Your task to perform on an android device: Open Amazon Image 0: 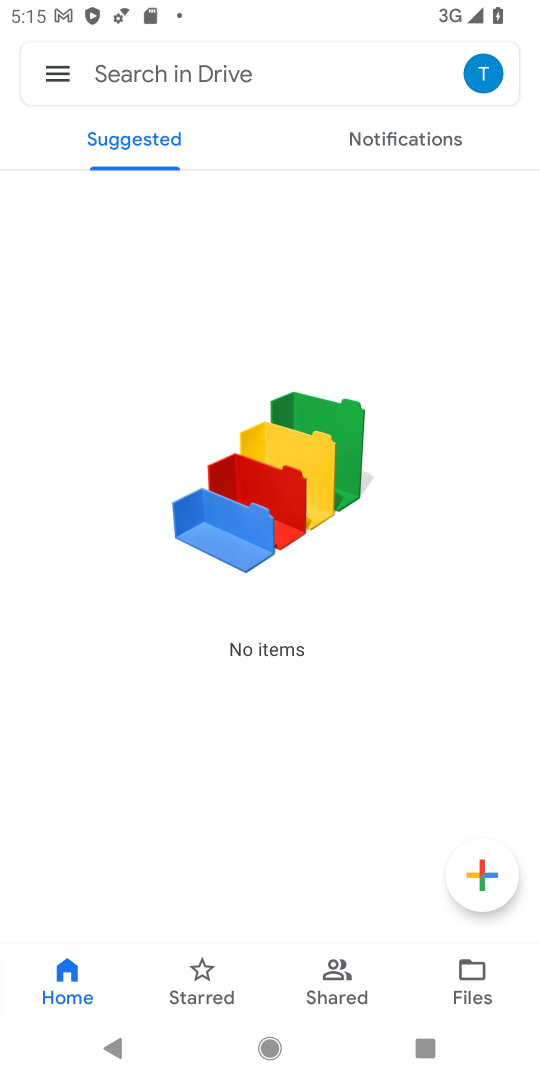
Step 0: press home button
Your task to perform on an android device: Open Amazon Image 1: 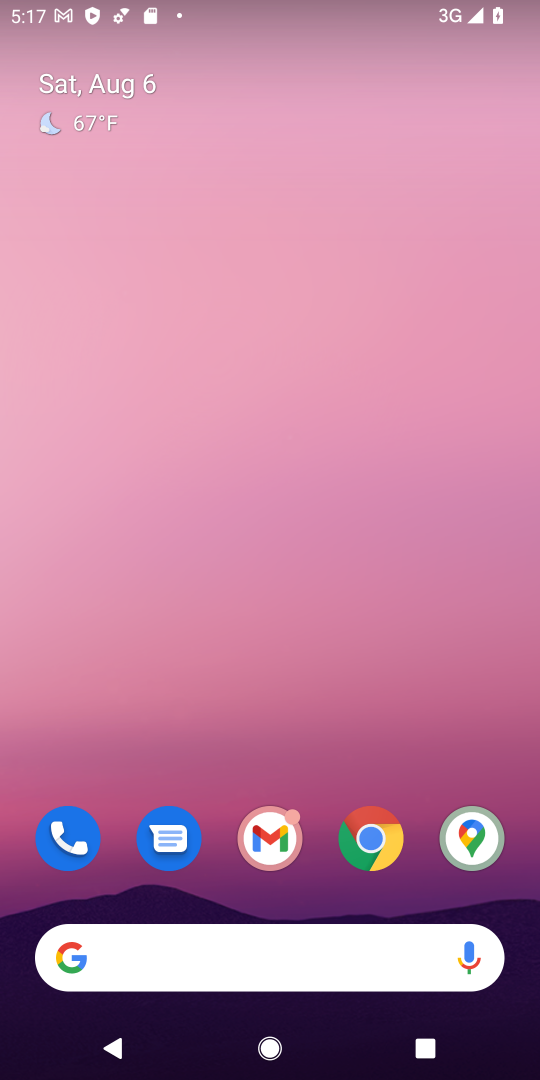
Step 1: drag from (258, 569) to (364, 53)
Your task to perform on an android device: Open Amazon Image 2: 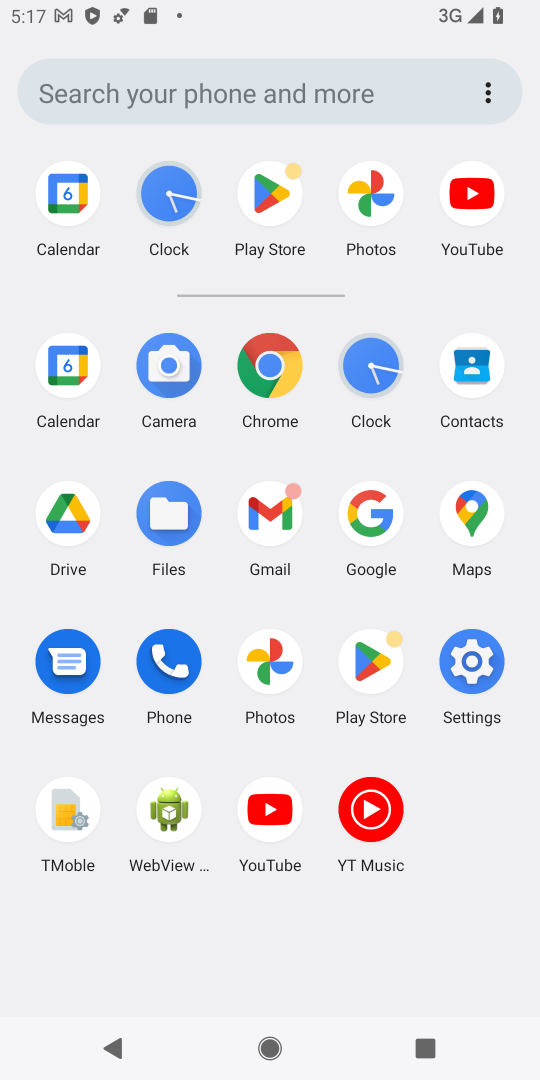
Step 2: click (255, 381)
Your task to perform on an android device: Open Amazon Image 3: 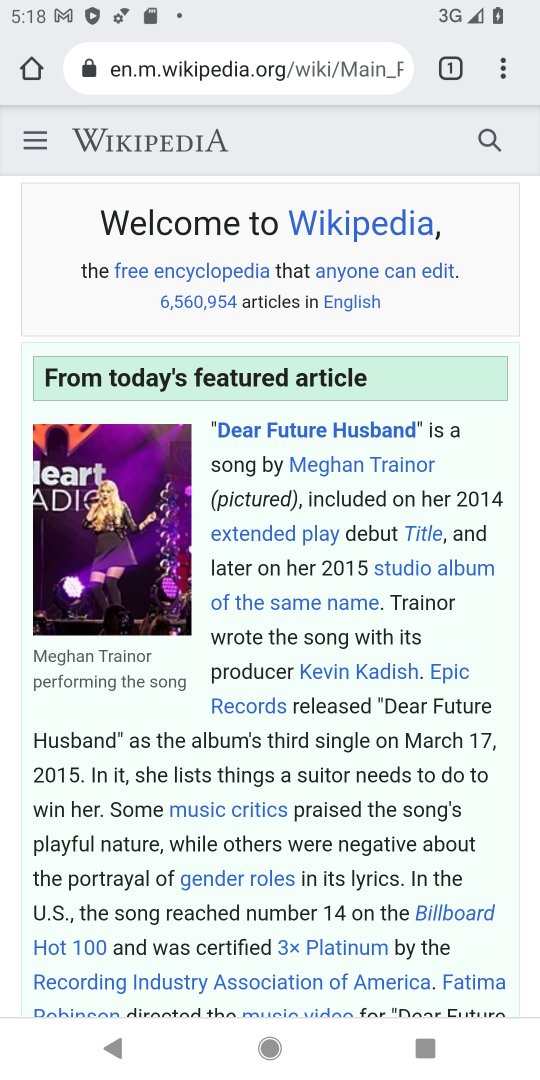
Step 3: click (448, 77)
Your task to perform on an android device: Open Amazon Image 4: 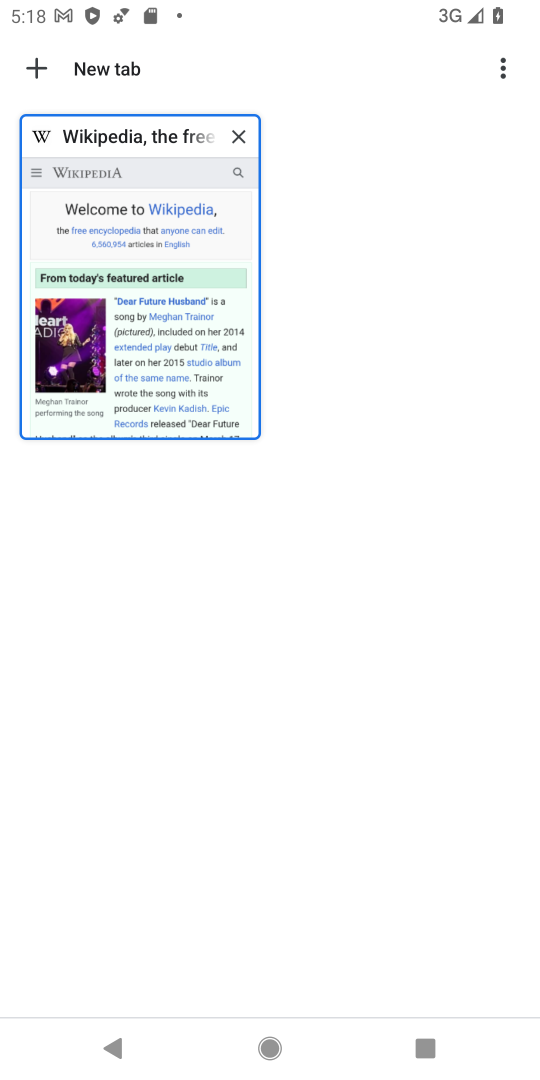
Step 4: click (46, 74)
Your task to perform on an android device: Open Amazon Image 5: 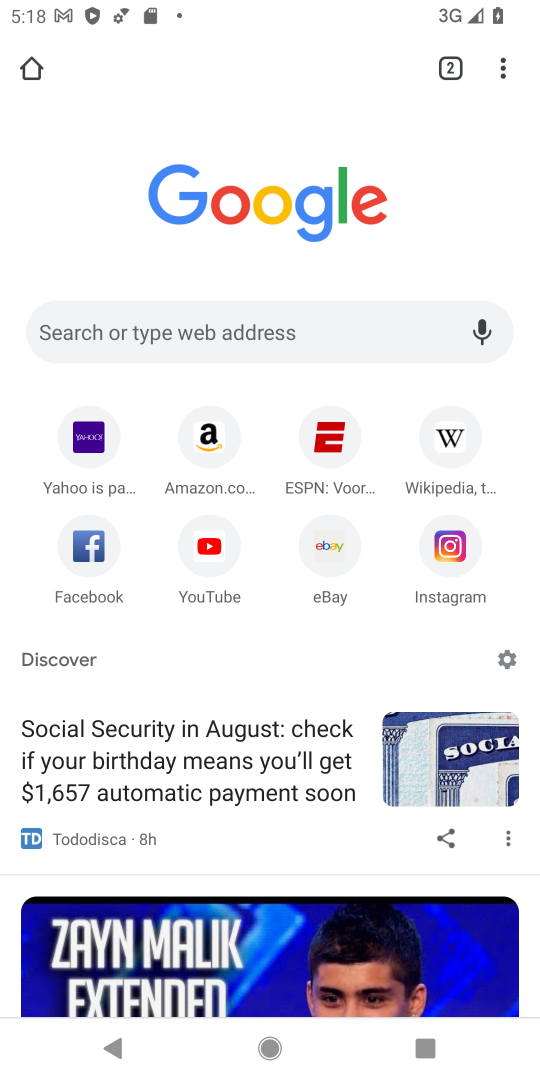
Step 5: click (222, 441)
Your task to perform on an android device: Open Amazon Image 6: 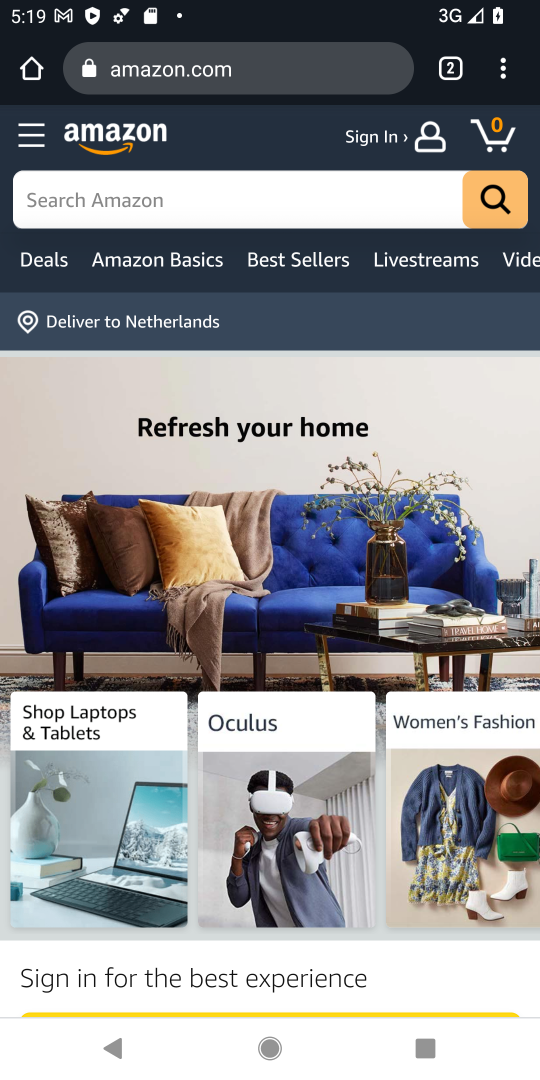
Step 6: task complete